Your task to perform on an android device: turn smart compose on in the gmail app Image 0: 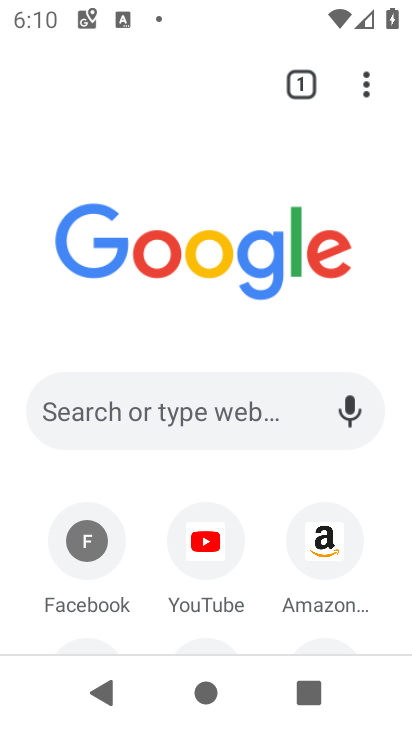
Step 0: press home button
Your task to perform on an android device: turn smart compose on in the gmail app Image 1: 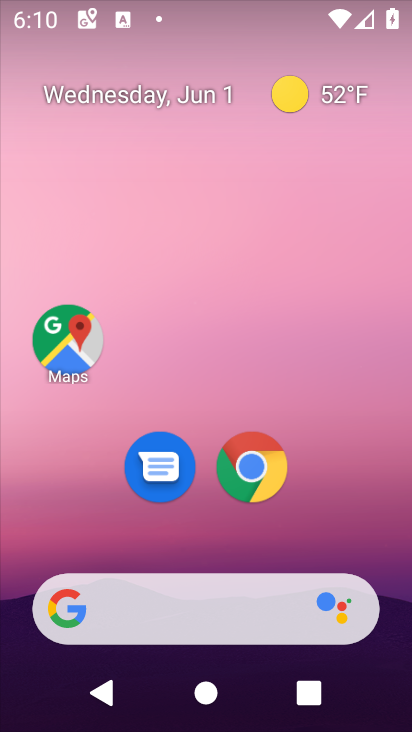
Step 1: drag from (322, 545) to (145, 16)
Your task to perform on an android device: turn smart compose on in the gmail app Image 2: 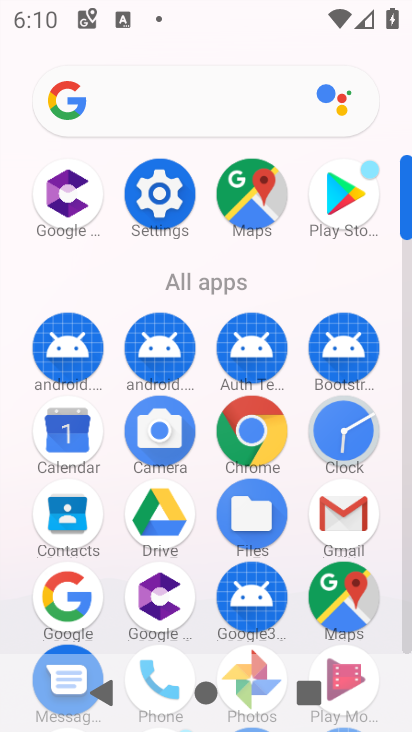
Step 2: click (346, 512)
Your task to perform on an android device: turn smart compose on in the gmail app Image 3: 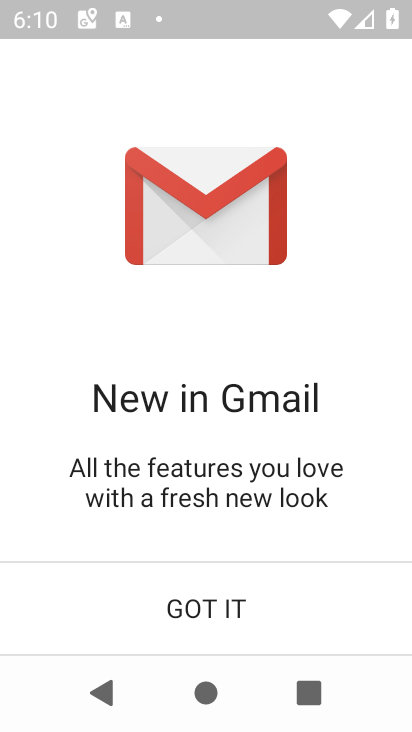
Step 3: click (249, 601)
Your task to perform on an android device: turn smart compose on in the gmail app Image 4: 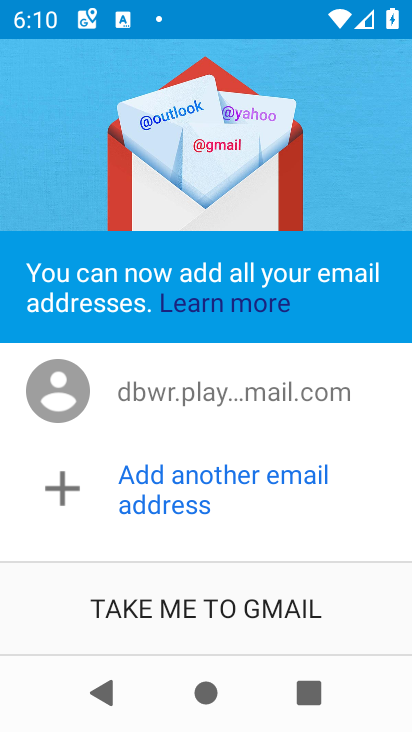
Step 4: click (251, 597)
Your task to perform on an android device: turn smart compose on in the gmail app Image 5: 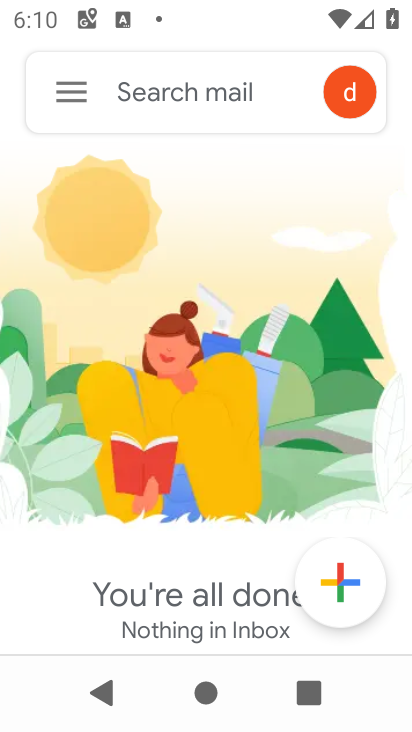
Step 5: click (79, 84)
Your task to perform on an android device: turn smart compose on in the gmail app Image 6: 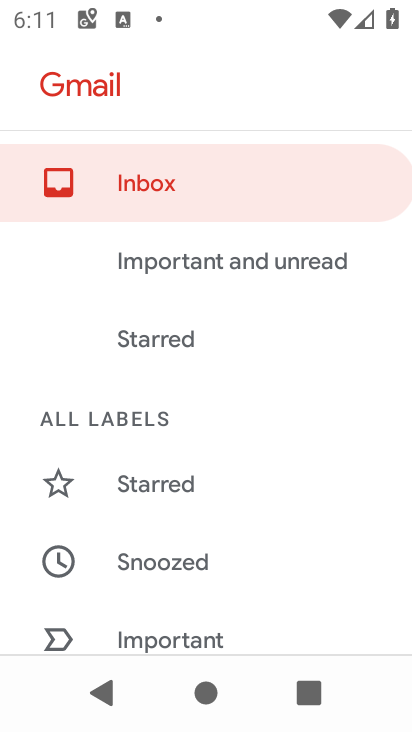
Step 6: drag from (294, 445) to (263, 104)
Your task to perform on an android device: turn smart compose on in the gmail app Image 7: 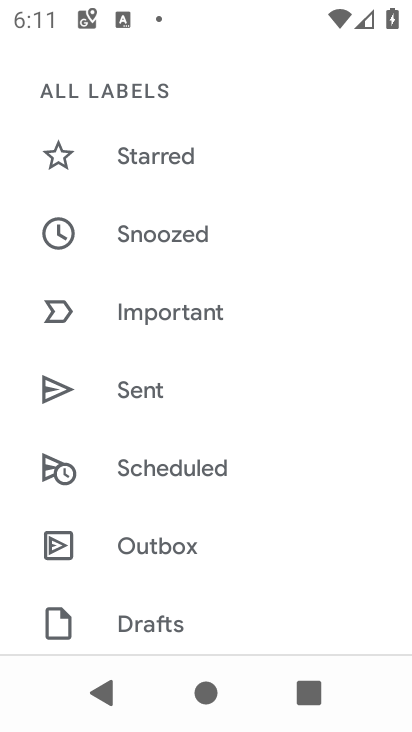
Step 7: drag from (209, 592) to (190, 113)
Your task to perform on an android device: turn smart compose on in the gmail app Image 8: 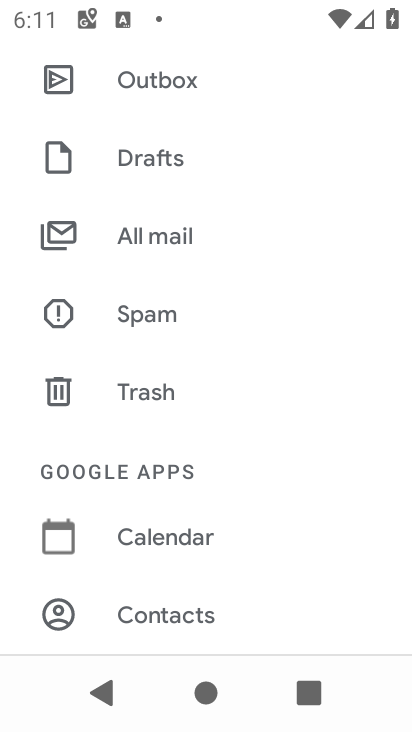
Step 8: drag from (192, 428) to (181, 158)
Your task to perform on an android device: turn smart compose on in the gmail app Image 9: 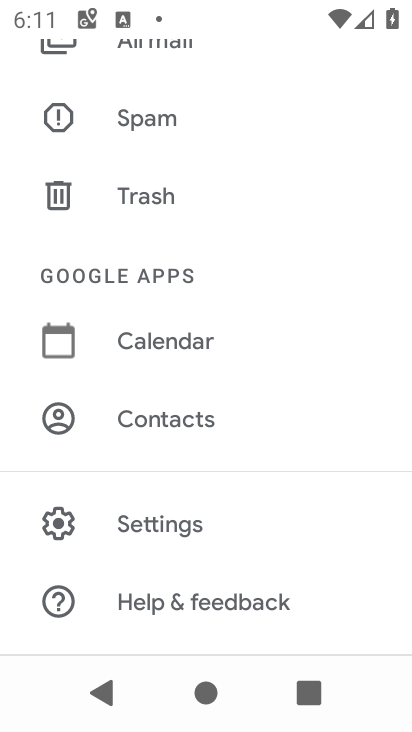
Step 9: click (172, 507)
Your task to perform on an android device: turn smart compose on in the gmail app Image 10: 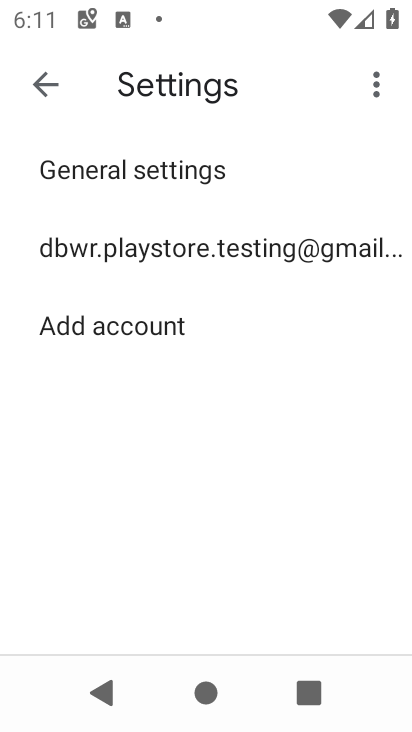
Step 10: drag from (251, 463) to (251, 317)
Your task to perform on an android device: turn smart compose on in the gmail app Image 11: 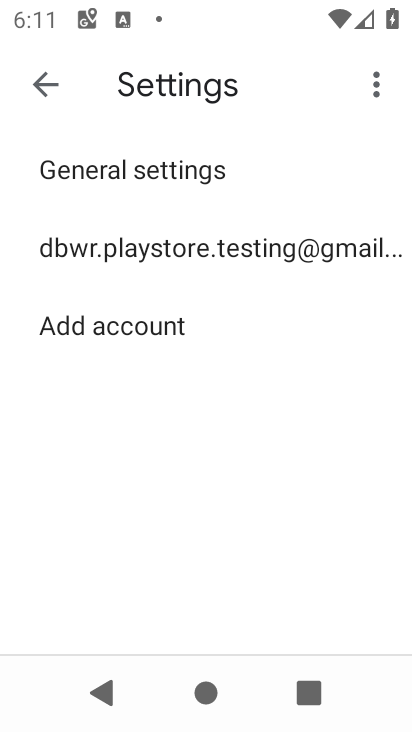
Step 11: click (258, 248)
Your task to perform on an android device: turn smart compose on in the gmail app Image 12: 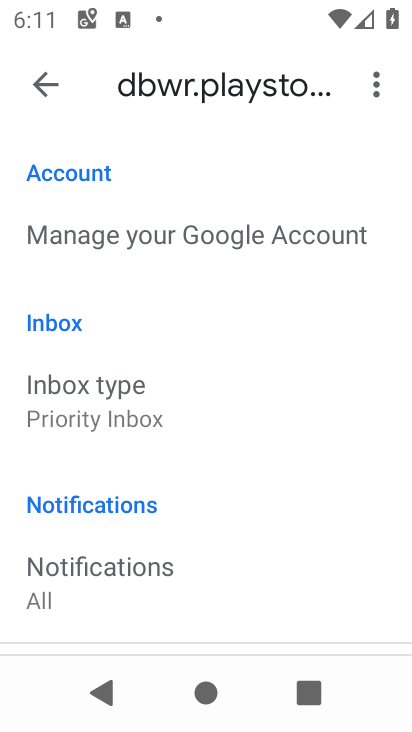
Step 12: task complete